Your task to perform on an android device: Open settings Image 0: 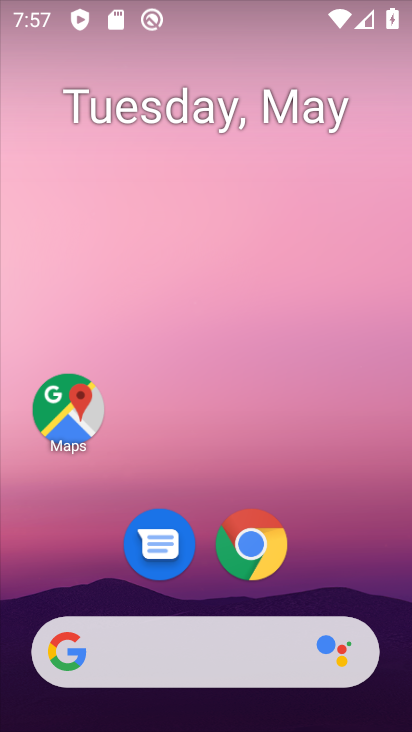
Step 0: drag from (256, 433) to (222, 222)
Your task to perform on an android device: Open settings Image 1: 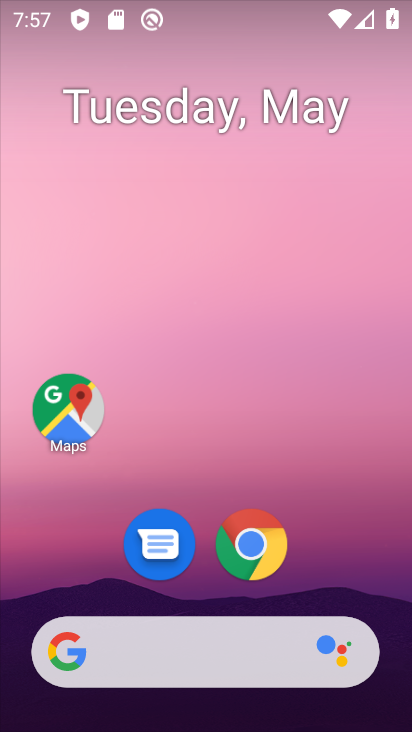
Step 1: drag from (309, 475) to (236, 84)
Your task to perform on an android device: Open settings Image 2: 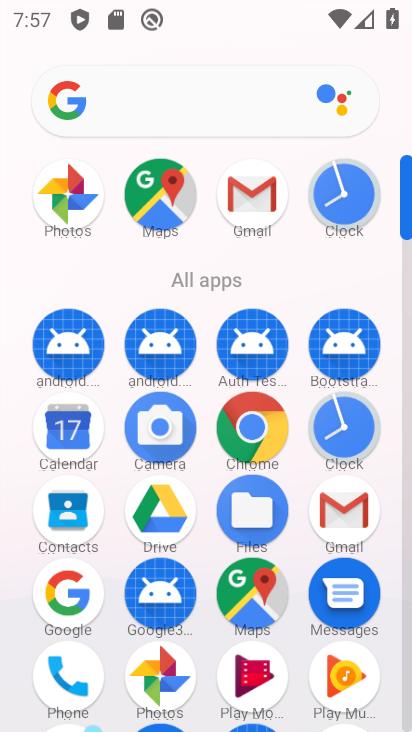
Step 2: drag from (208, 608) to (135, 162)
Your task to perform on an android device: Open settings Image 3: 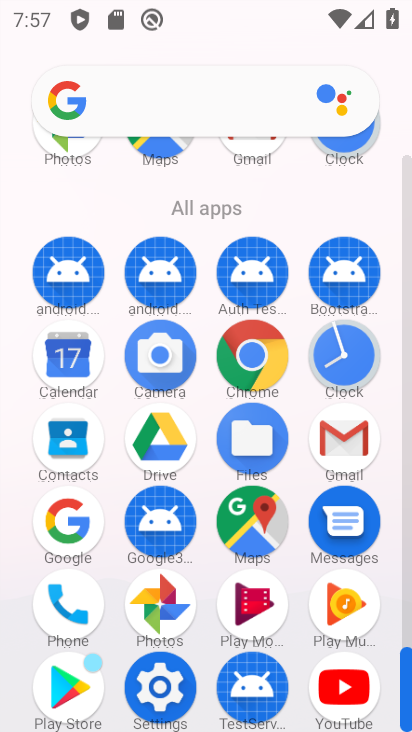
Step 3: click (157, 684)
Your task to perform on an android device: Open settings Image 4: 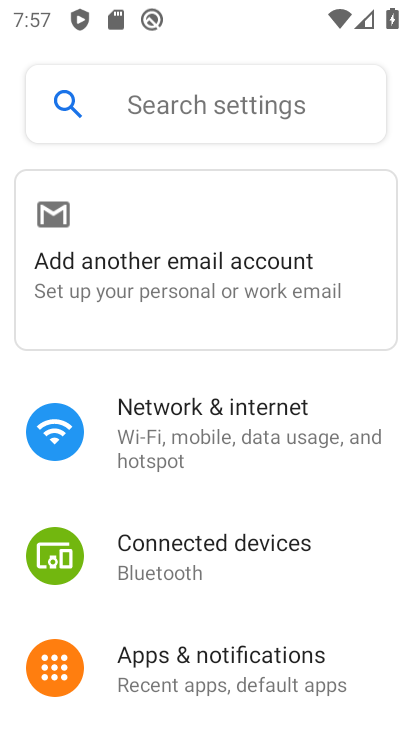
Step 4: task complete